Your task to perform on an android device: turn on priority inbox in the gmail app Image 0: 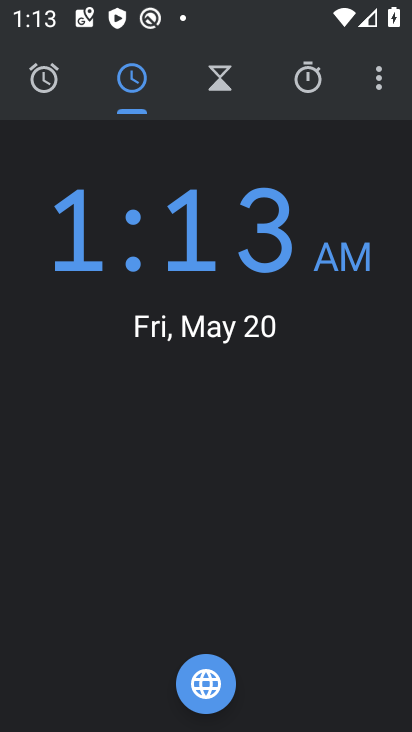
Step 0: press home button
Your task to perform on an android device: turn on priority inbox in the gmail app Image 1: 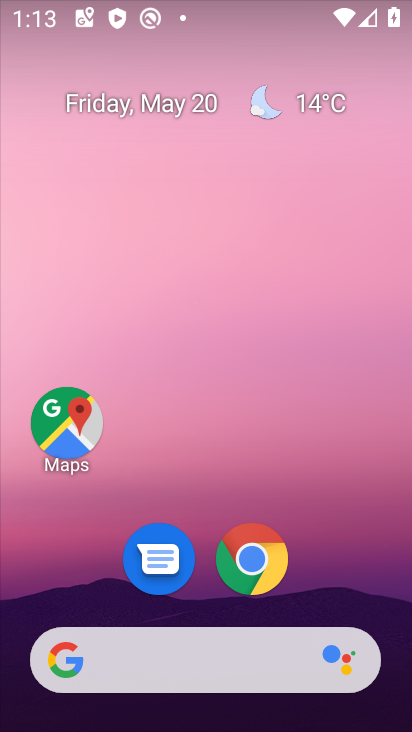
Step 1: drag from (332, 575) to (293, 213)
Your task to perform on an android device: turn on priority inbox in the gmail app Image 2: 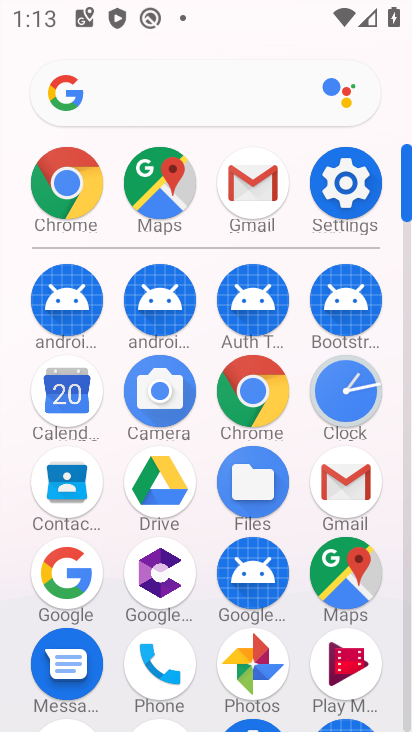
Step 2: click (357, 491)
Your task to perform on an android device: turn on priority inbox in the gmail app Image 3: 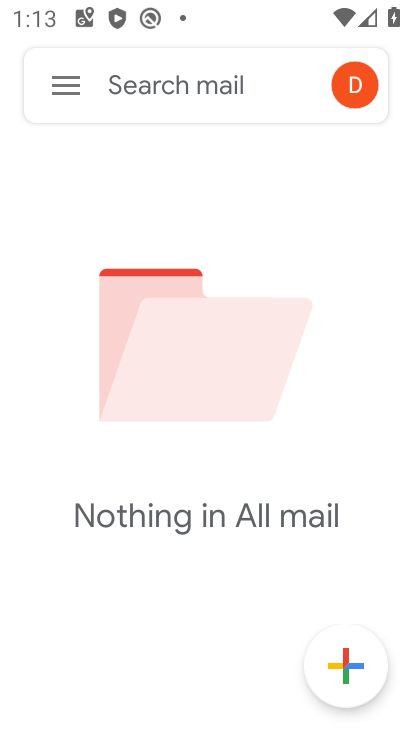
Step 3: click (61, 102)
Your task to perform on an android device: turn on priority inbox in the gmail app Image 4: 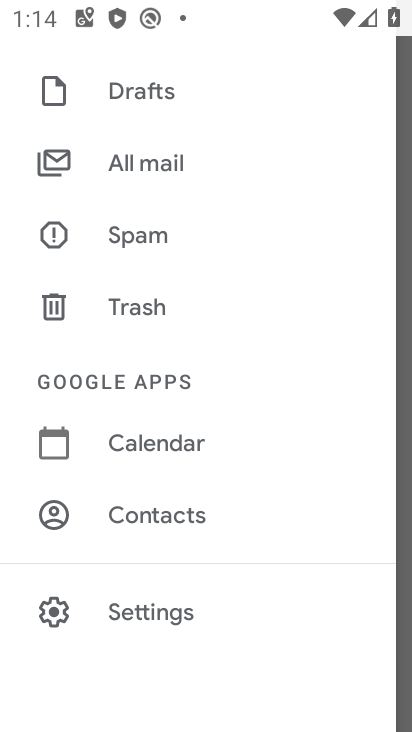
Step 4: click (202, 618)
Your task to perform on an android device: turn on priority inbox in the gmail app Image 5: 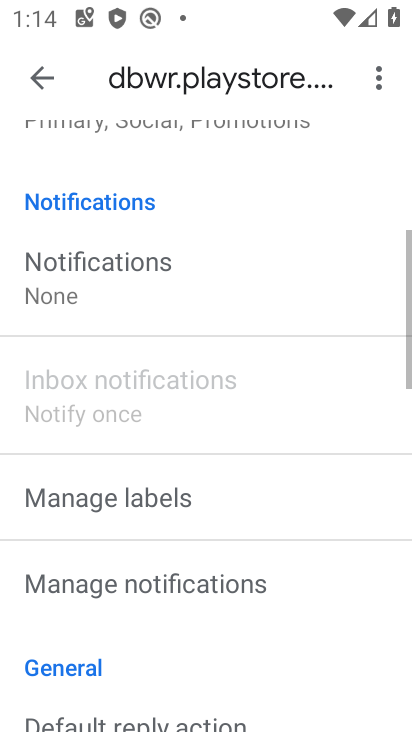
Step 5: drag from (202, 618) to (186, 428)
Your task to perform on an android device: turn on priority inbox in the gmail app Image 6: 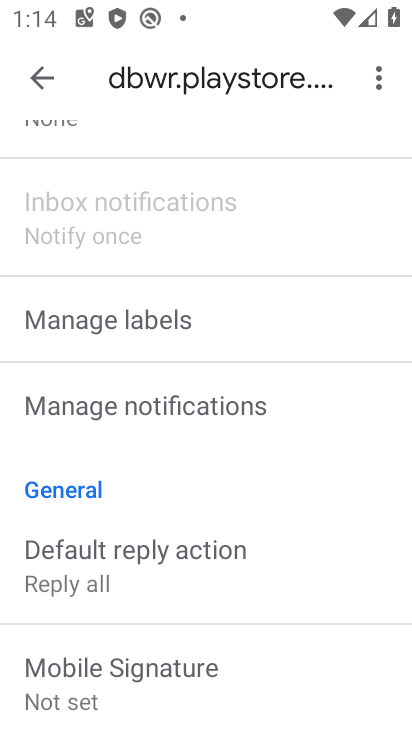
Step 6: drag from (186, 428) to (197, 15)
Your task to perform on an android device: turn on priority inbox in the gmail app Image 7: 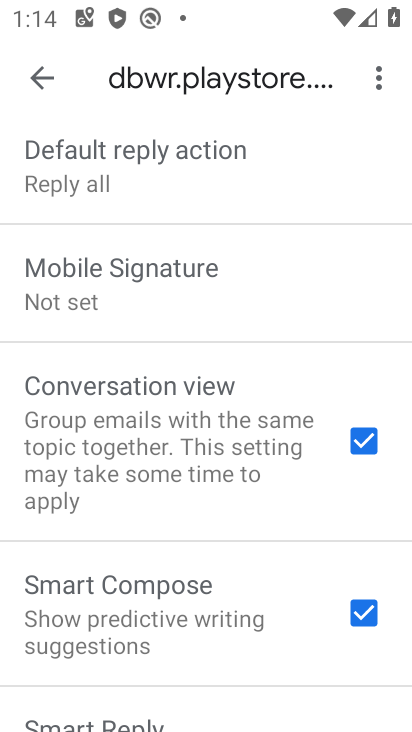
Step 7: drag from (164, 478) to (173, 121)
Your task to perform on an android device: turn on priority inbox in the gmail app Image 8: 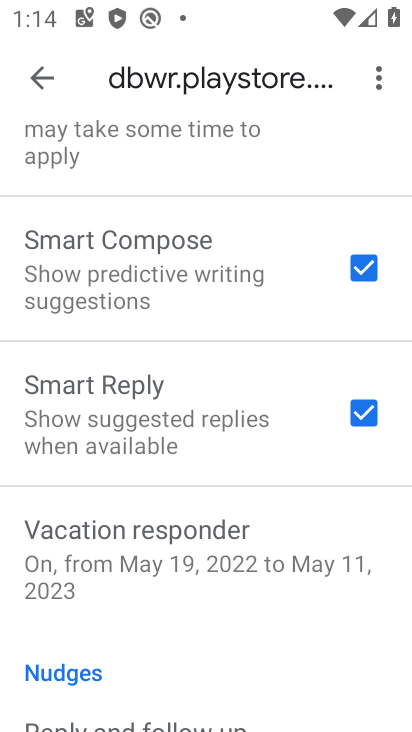
Step 8: drag from (208, 372) to (205, 619)
Your task to perform on an android device: turn on priority inbox in the gmail app Image 9: 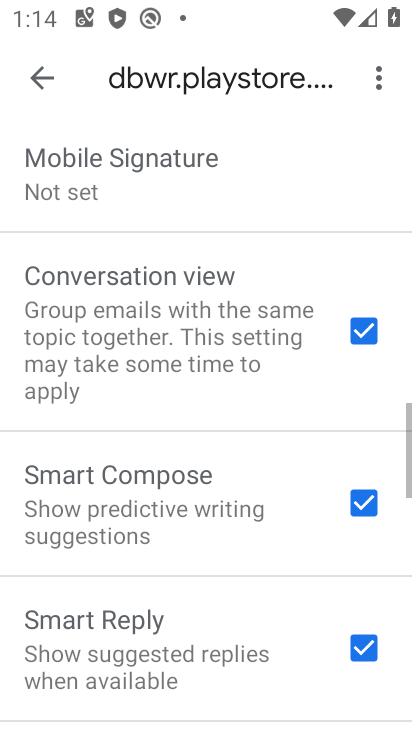
Step 9: click (167, 316)
Your task to perform on an android device: turn on priority inbox in the gmail app Image 10: 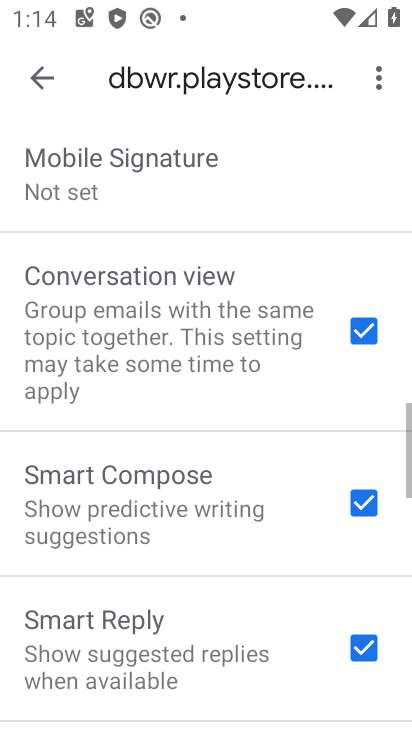
Step 10: task complete